Your task to perform on an android device: Open Wikipedia Image 0: 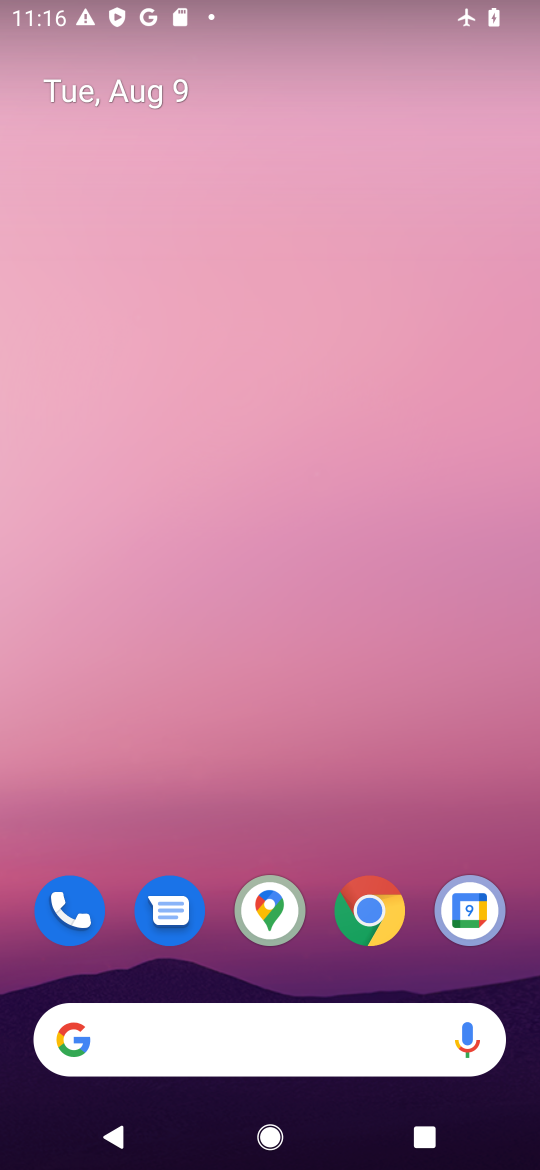
Step 0: press home button
Your task to perform on an android device: Open Wikipedia Image 1: 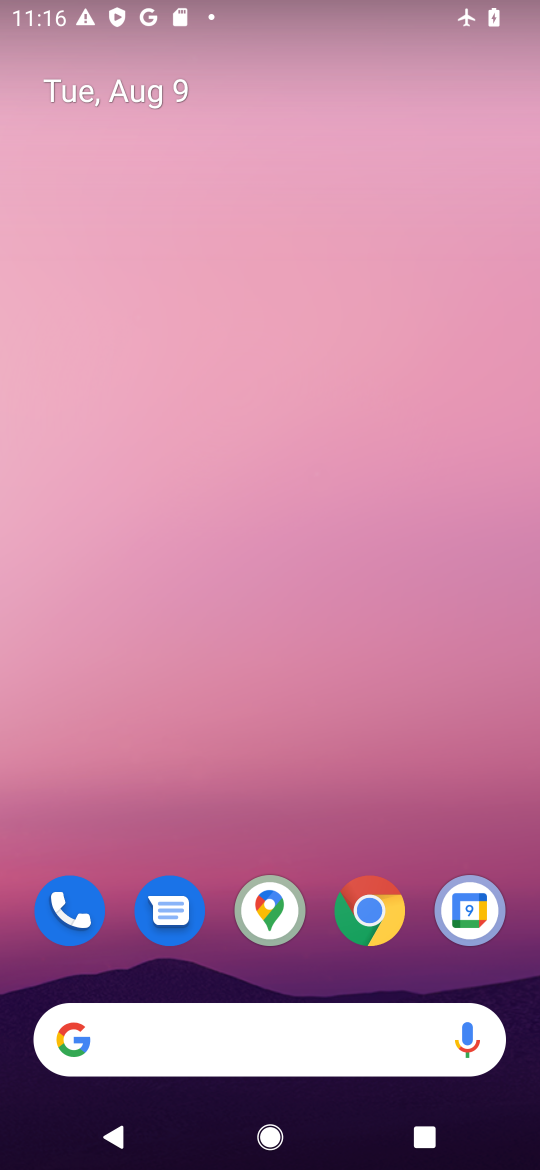
Step 1: click (361, 911)
Your task to perform on an android device: Open Wikipedia Image 2: 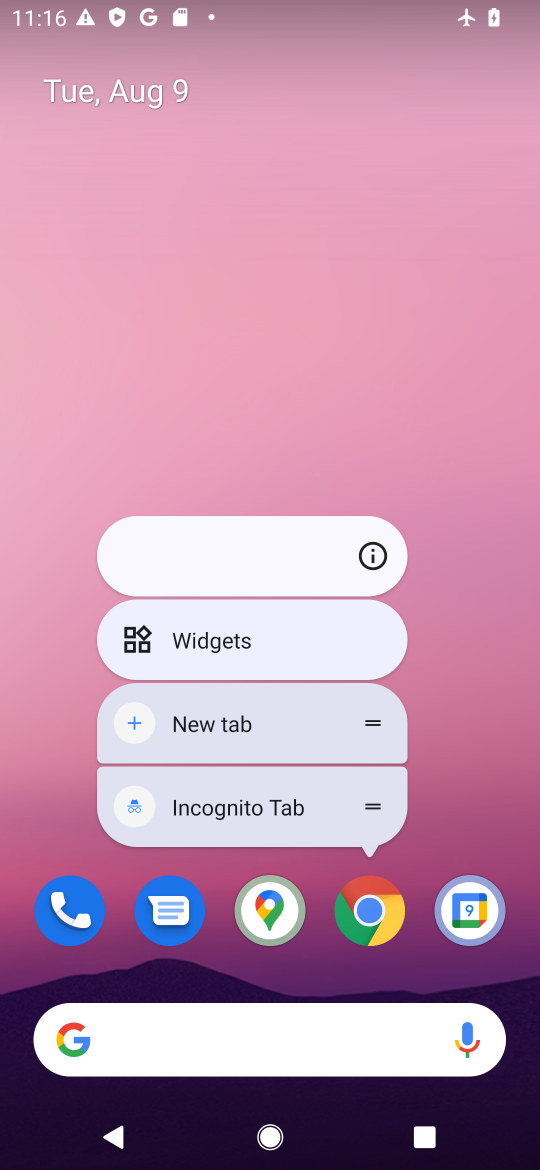
Step 2: click (364, 903)
Your task to perform on an android device: Open Wikipedia Image 3: 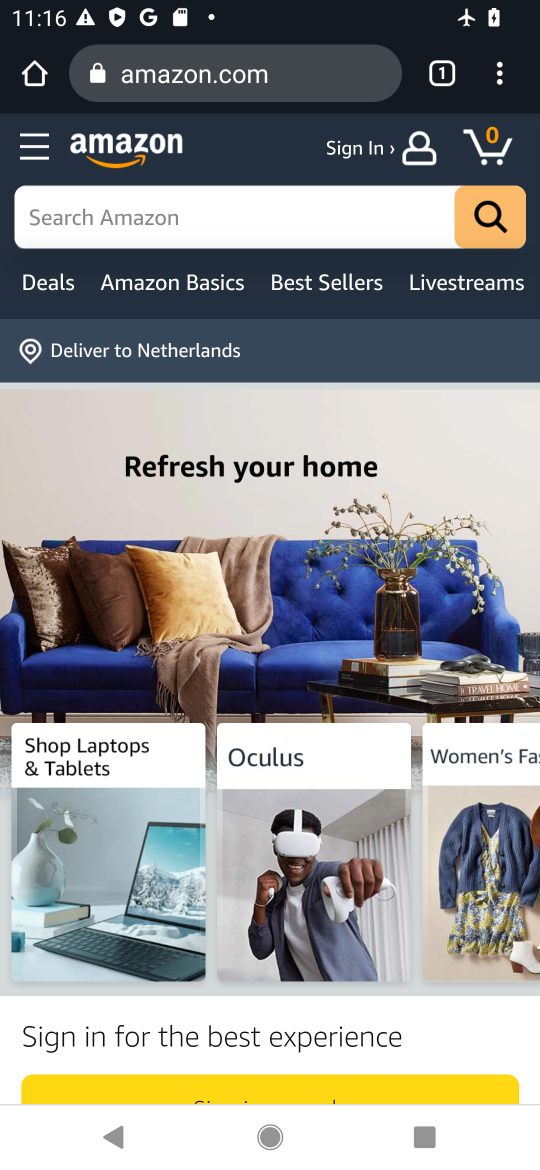
Step 3: click (449, 78)
Your task to perform on an android device: Open Wikipedia Image 4: 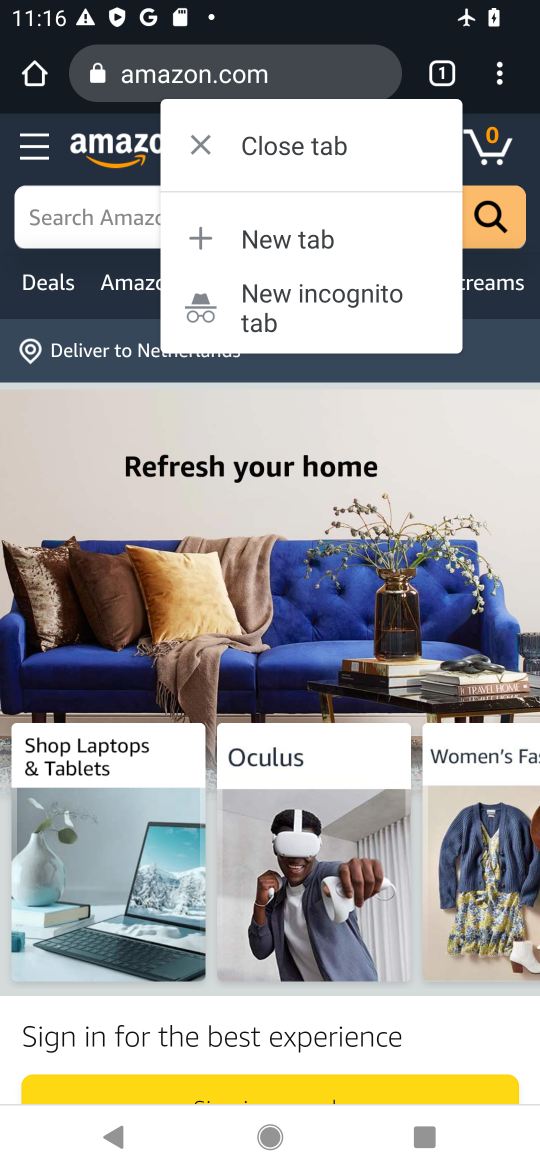
Step 4: click (441, 68)
Your task to perform on an android device: Open Wikipedia Image 5: 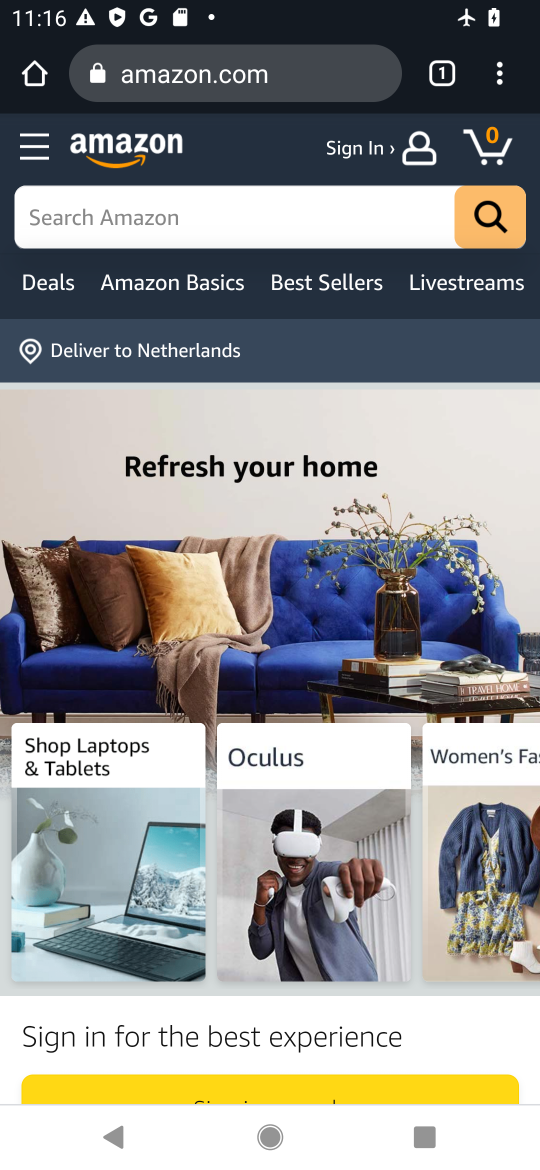
Step 5: click (439, 64)
Your task to perform on an android device: Open Wikipedia Image 6: 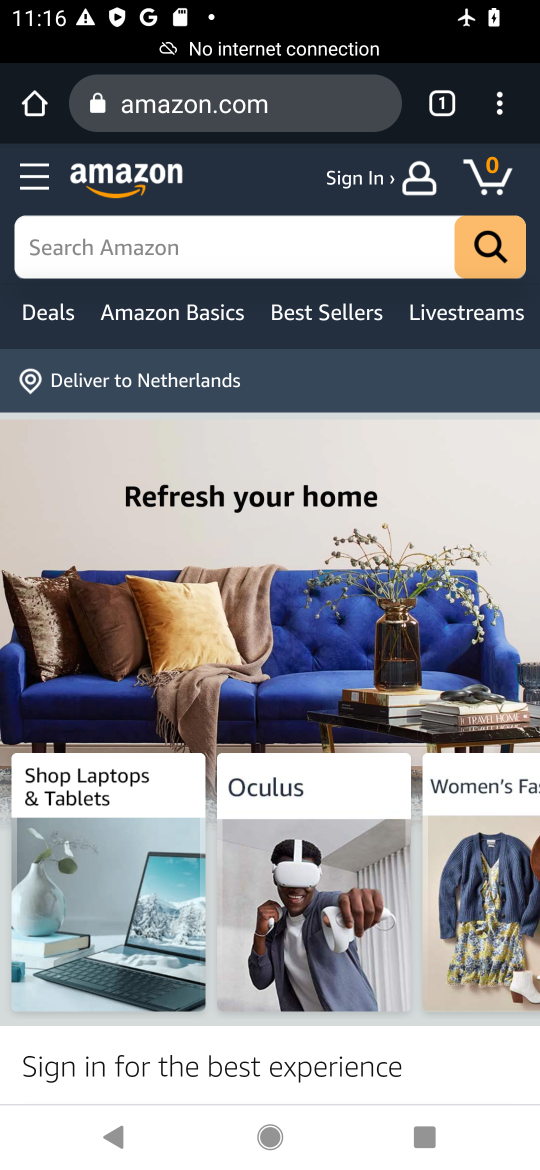
Step 6: click (432, 105)
Your task to perform on an android device: Open Wikipedia Image 7: 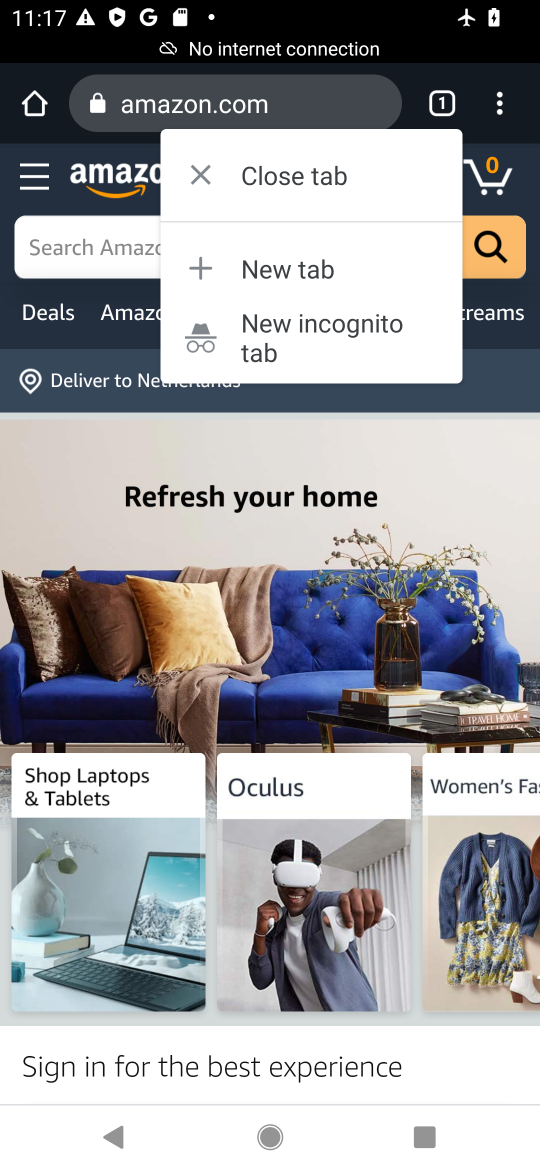
Step 7: click (318, 166)
Your task to perform on an android device: Open Wikipedia Image 8: 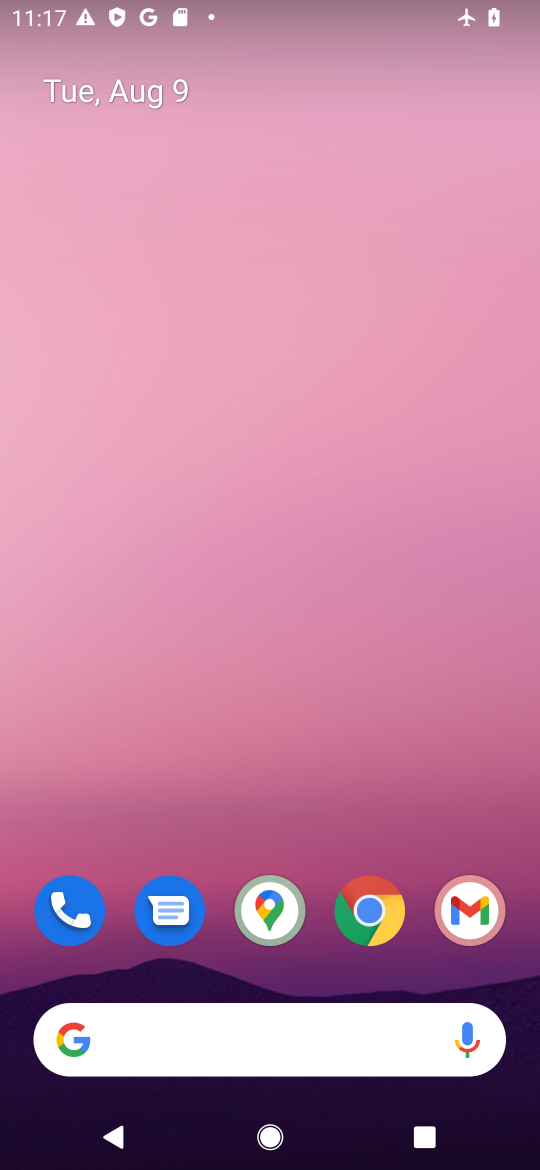
Step 8: click (364, 930)
Your task to perform on an android device: Open Wikipedia Image 9: 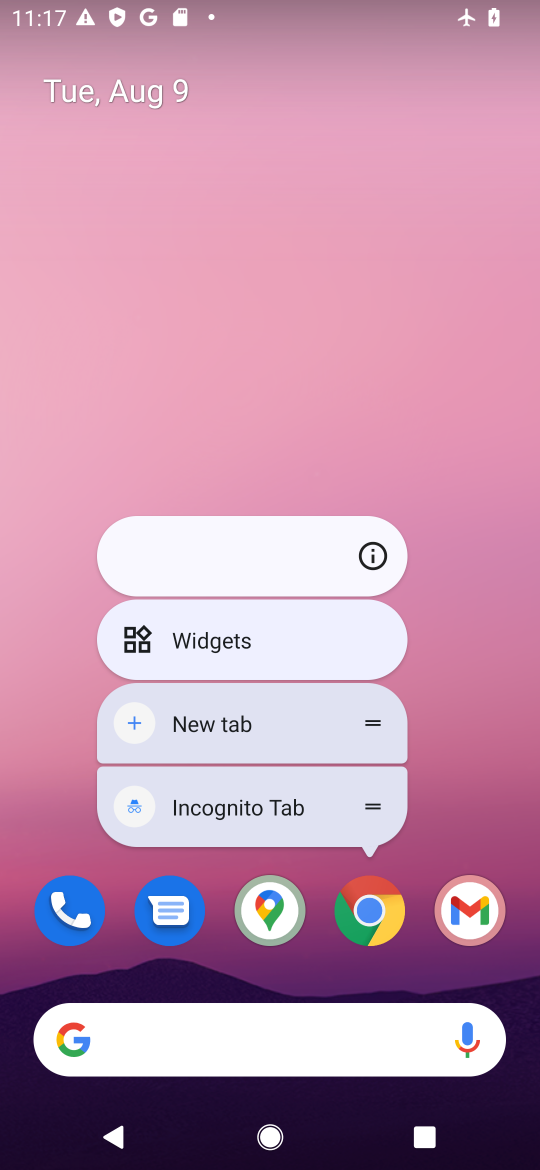
Step 9: click (363, 928)
Your task to perform on an android device: Open Wikipedia Image 10: 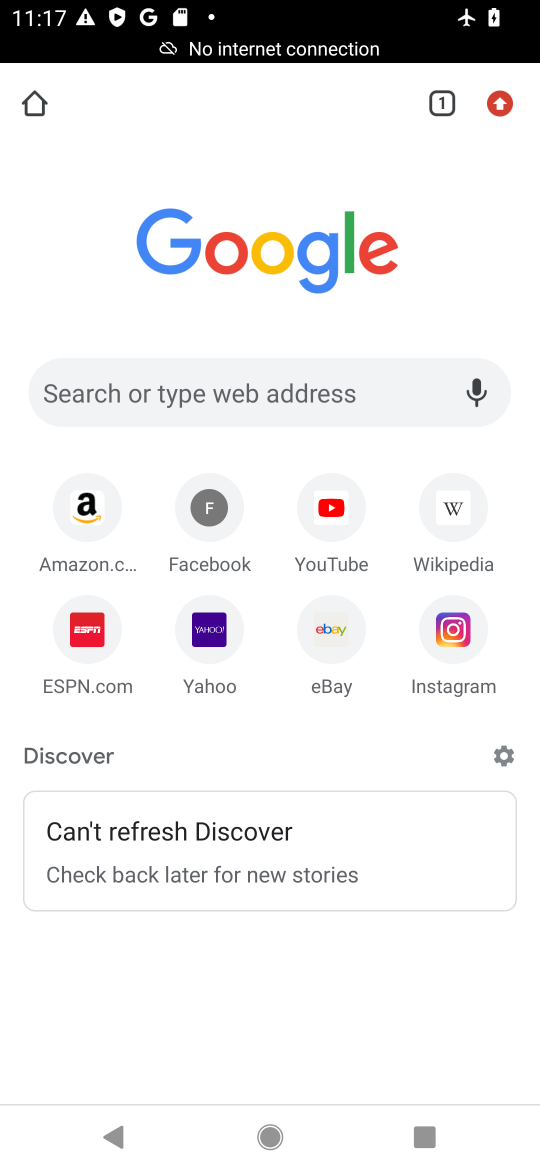
Step 10: click (446, 503)
Your task to perform on an android device: Open Wikipedia Image 11: 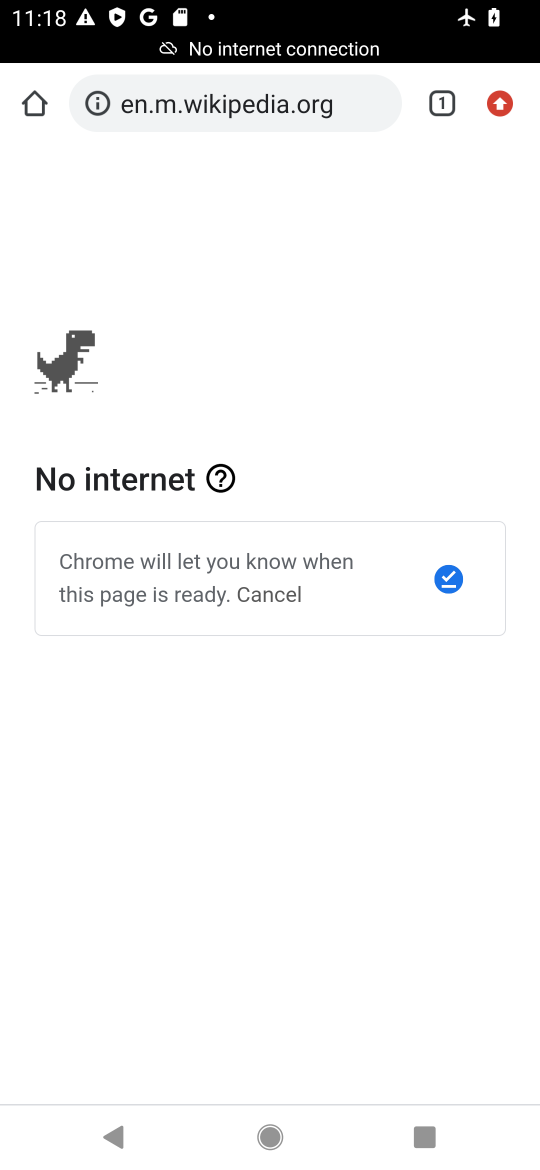
Step 11: task complete